Your task to perform on an android device: turn on the 12-hour format for clock Image 0: 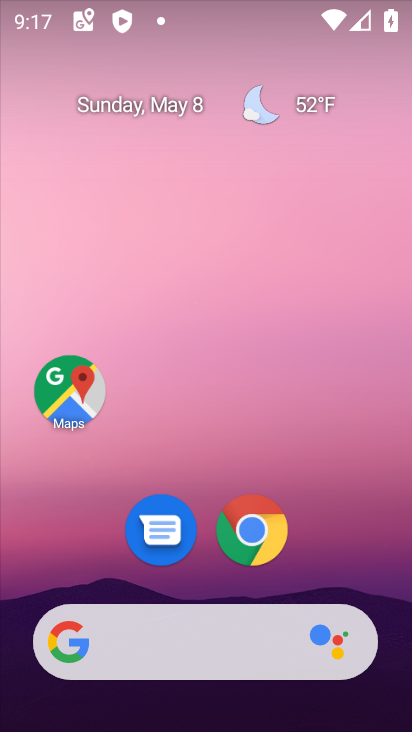
Step 0: drag from (206, 608) to (241, 144)
Your task to perform on an android device: turn on the 12-hour format for clock Image 1: 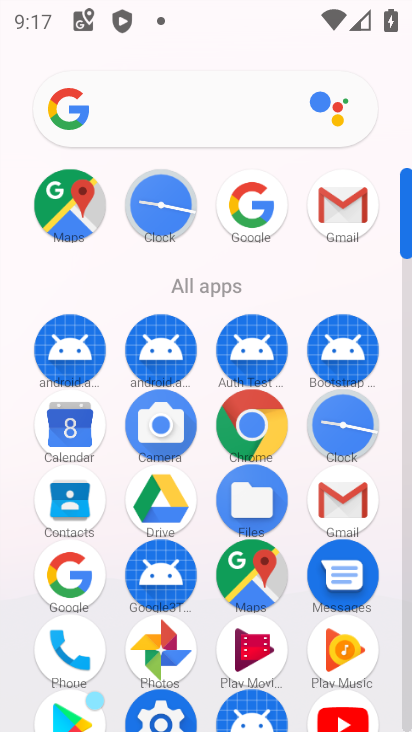
Step 1: click (356, 418)
Your task to perform on an android device: turn on the 12-hour format for clock Image 2: 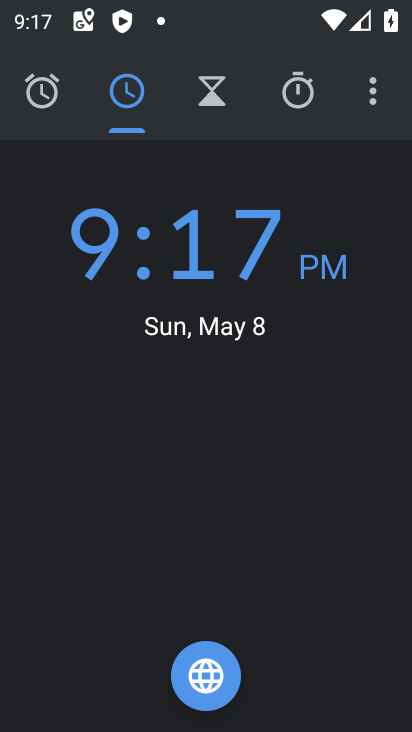
Step 2: click (373, 99)
Your task to perform on an android device: turn on the 12-hour format for clock Image 3: 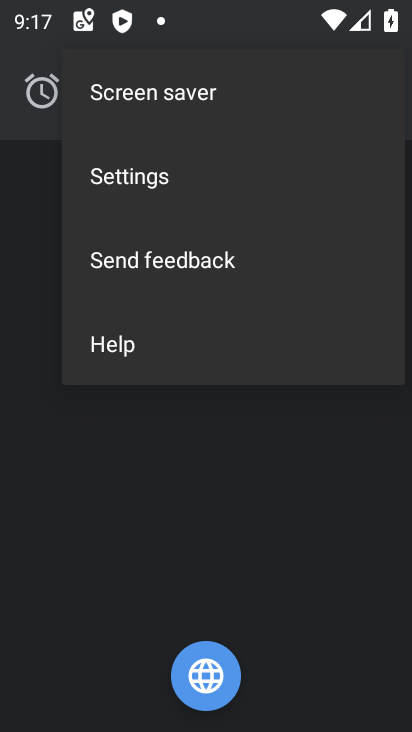
Step 3: click (161, 168)
Your task to perform on an android device: turn on the 12-hour format for clock Image 4: 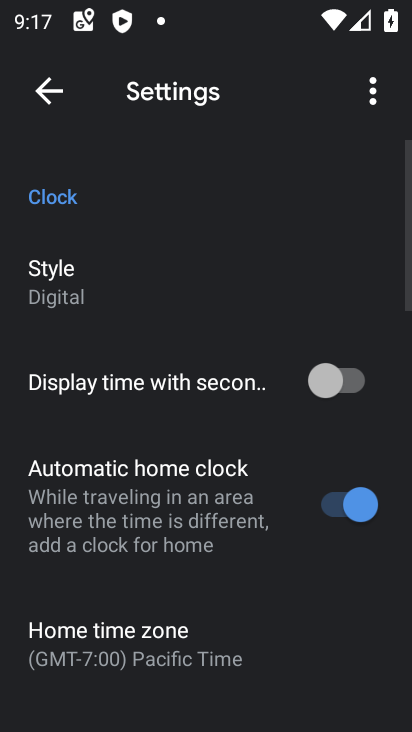
Step 4: drag from (114, 625) to (158, 225)
Your task to perform on an android device: turn on the 12-hour format for clock Image 5: 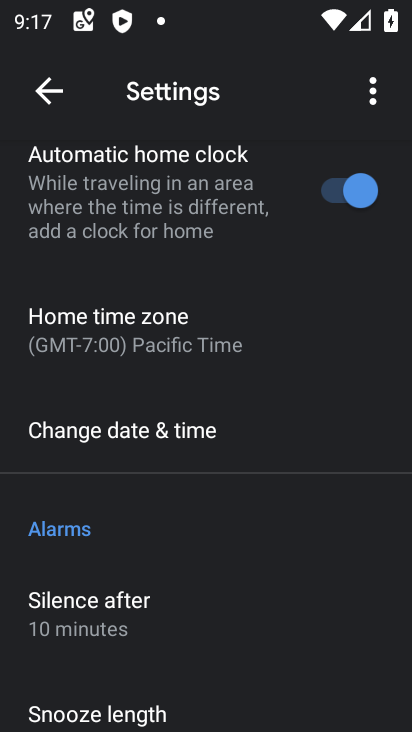
Step 5: drag from (160, 438) to (180, 345)
Your task to perform on an android device: turn on the 12-hour format for clock Image 6: 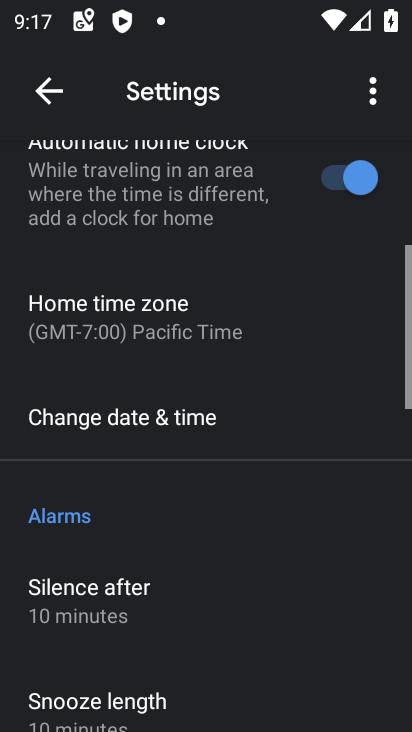
Step 6: drag from (142, 572) to (153, 487)
Your task to perform on an android device: turn on the 12-hour format for clock Image 7: 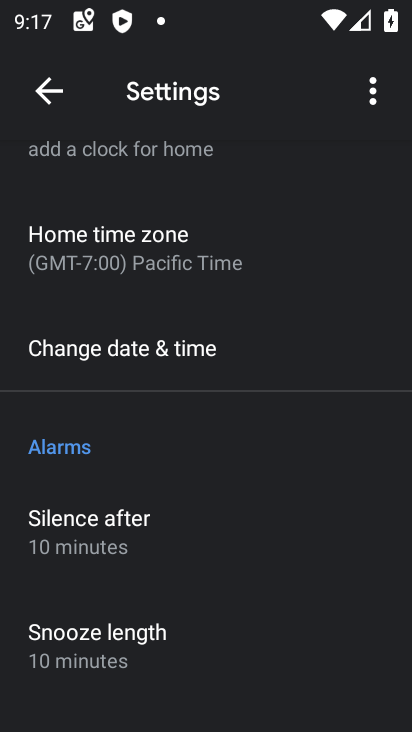
Step 7: drag from (140, 287) to (127, 463)
Your task to perform on an android device: turn on the 12-hour format for clock Image 8: 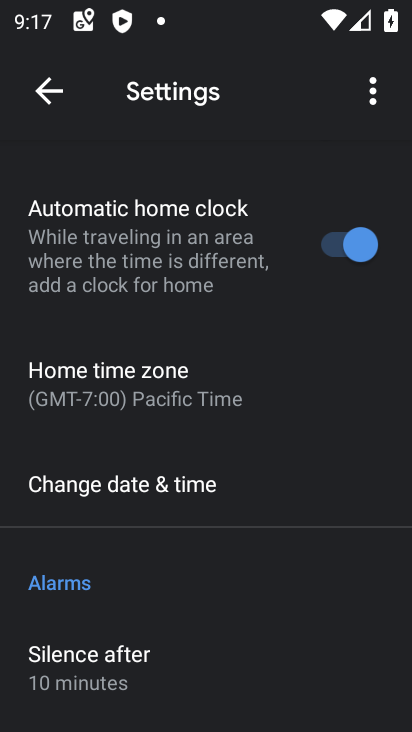
Step 8: click (76, 492)
Your task to perform on an android device: turn on the 12-hour format for clock Image 9: 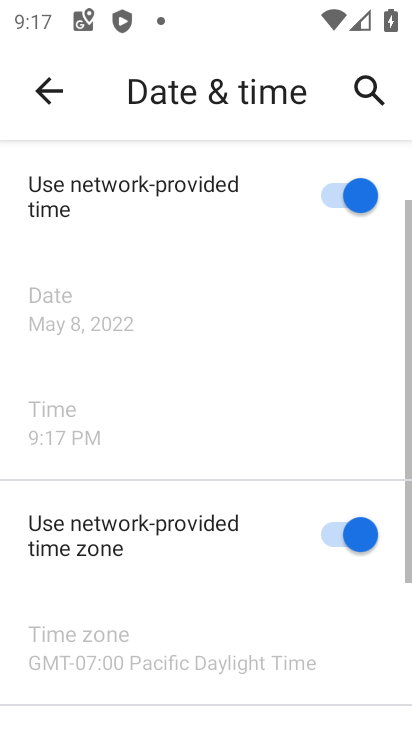
Step 9: task complete